Your task to perform on an android device: What's the news in Bolivia? Image 0: 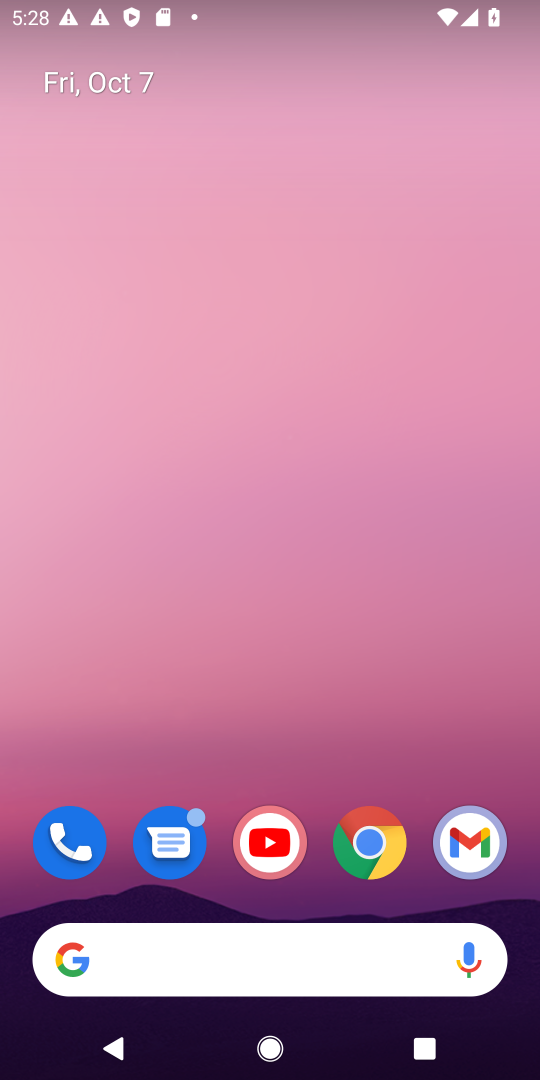
Step 0: drag from (317, 870) to (366, 129)
Your task to perform on an android device: What's the news in Bolivia? Image 1: 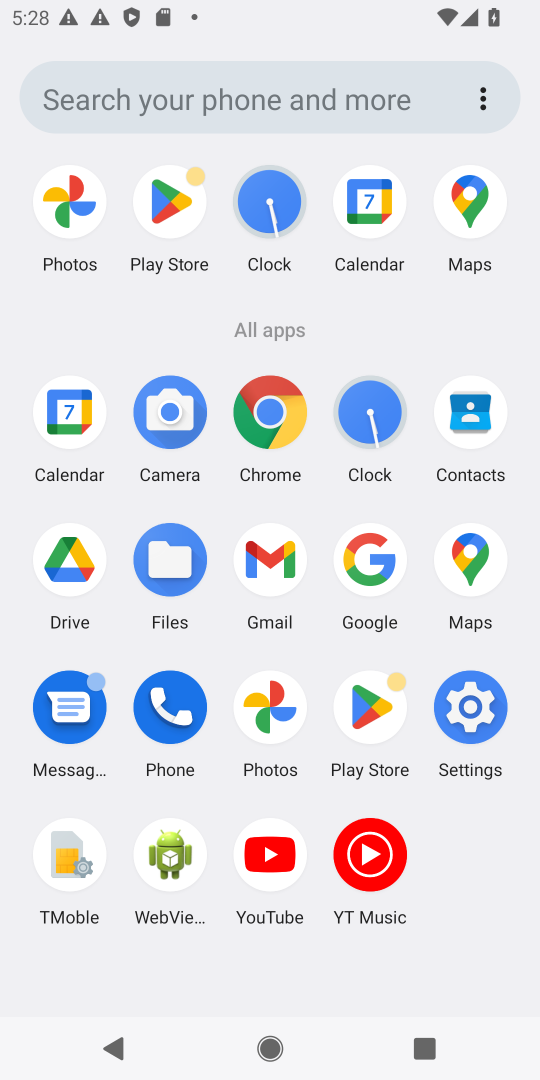
Step 1: click (369, 562)
Your task to perform on an android device: What's the news in Bolivia? Image 2: 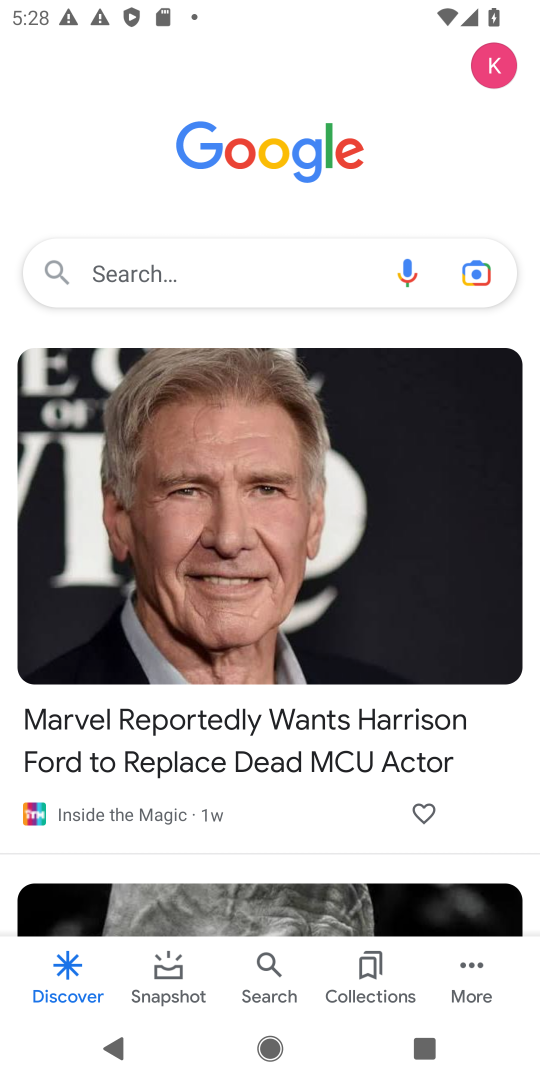
Step 2: click (157, 278)
Your task to perform on an android device: What's the news in Bolivia? Image 3: 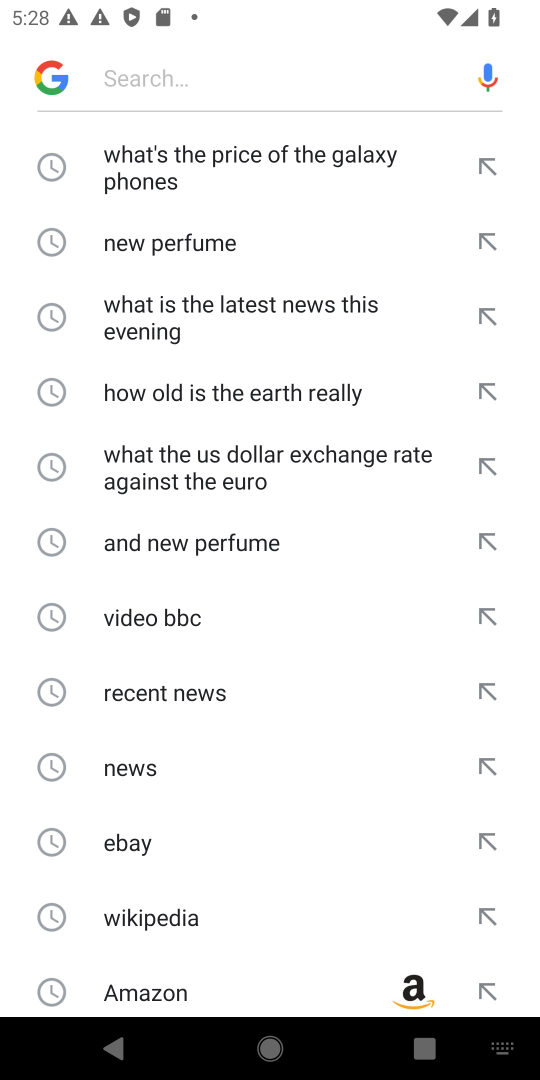
Step 3: click (254, 88)
Your task to perform on an android device: What's the news in Bolivia? Image 4: 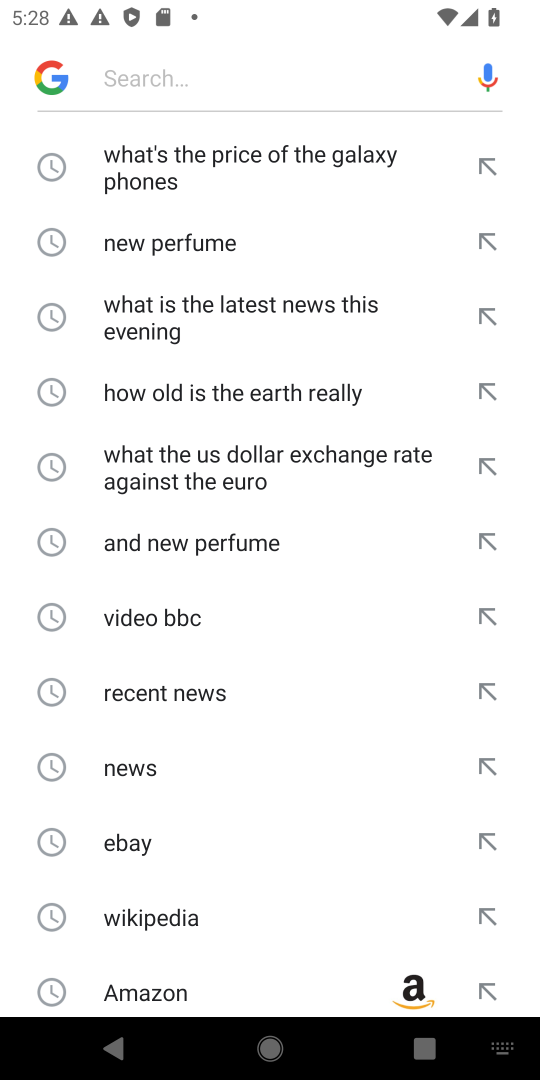
Step 4: type "What's the news in Bolivia"
Your task to perform on an android device: What's the news in Bolivia? Image 5: 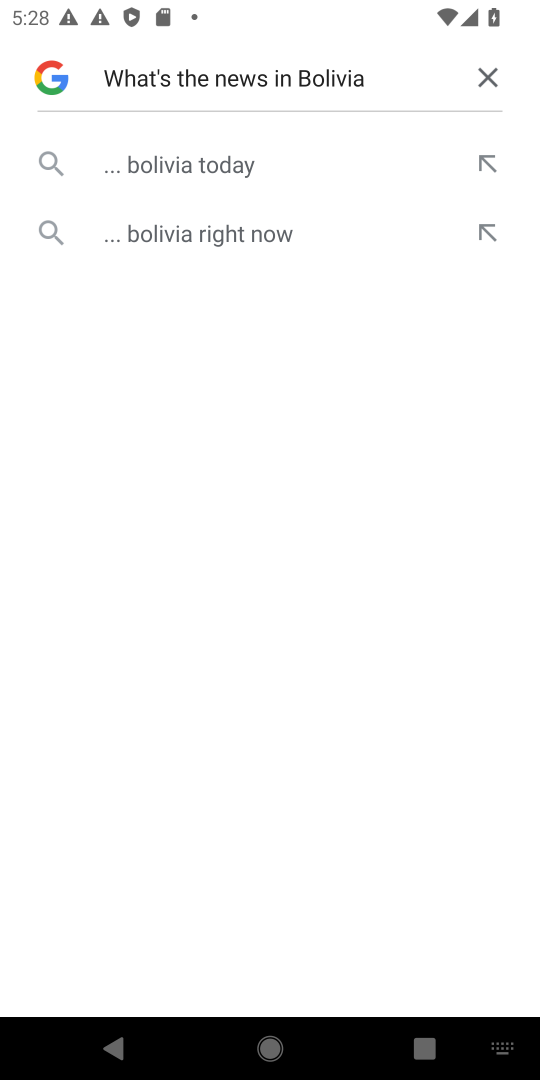
Step 5: click (215, 175)
Your task to perform on an android device: What's the news in Bolivia? Image 6: 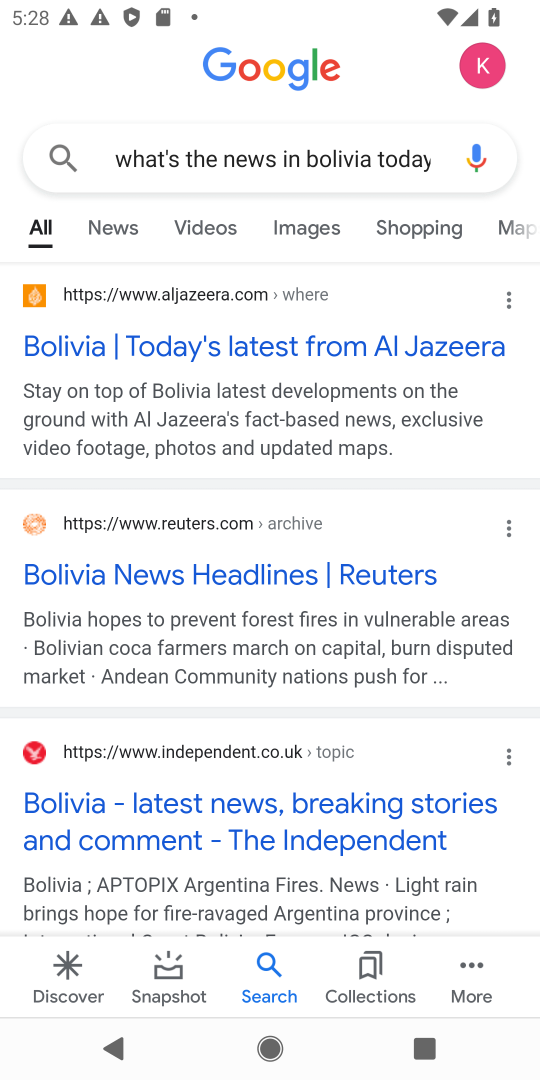
Step 6: click (167, 345)
Your task to perform on an android device: What's the news in Bolivia? Image 7: 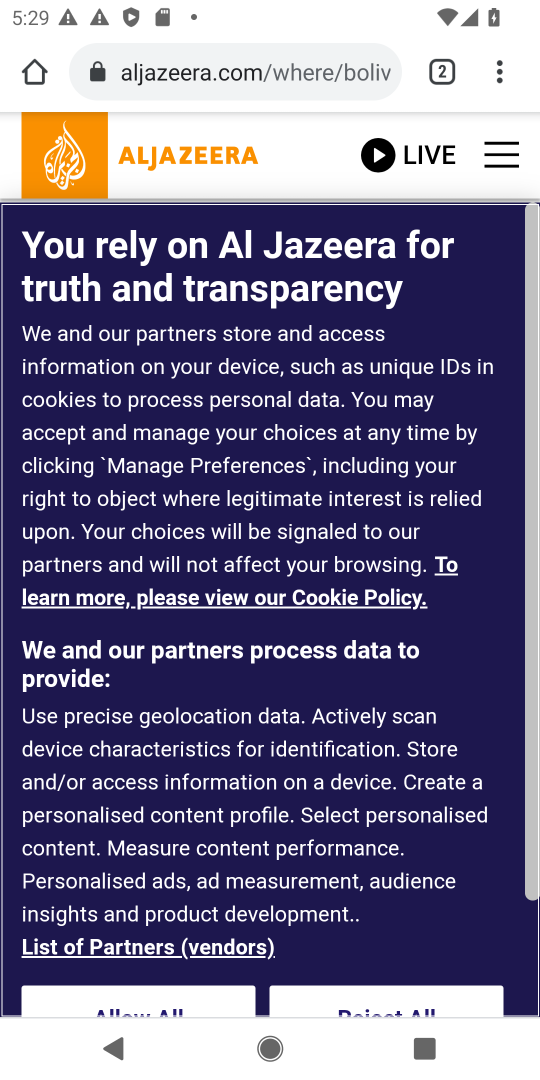
Step 7: task complete